Your task to perform on an android device: Open Maps and search for coffee Image 0: 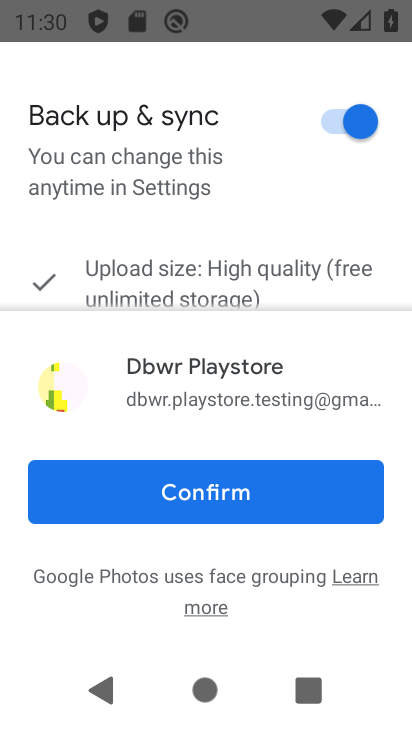
Step 0: press home button
Your task to perform on an android device: Open Maps and search for coffee Image 1: 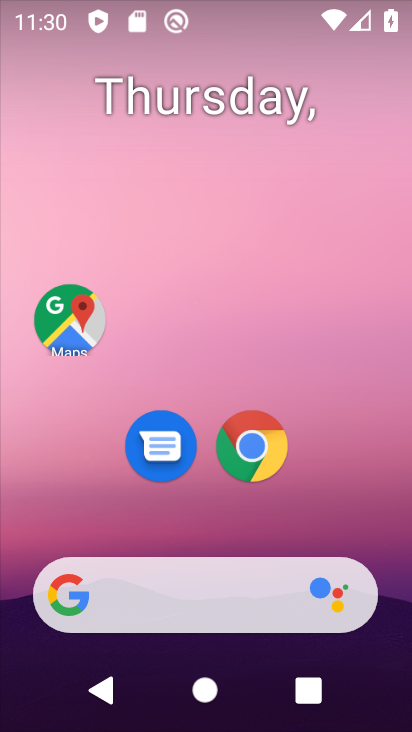
Step 1: drag from (360, 481) to (286, 26)
Your task to perform on an android device: Open Maps and search for coffee Image 2: 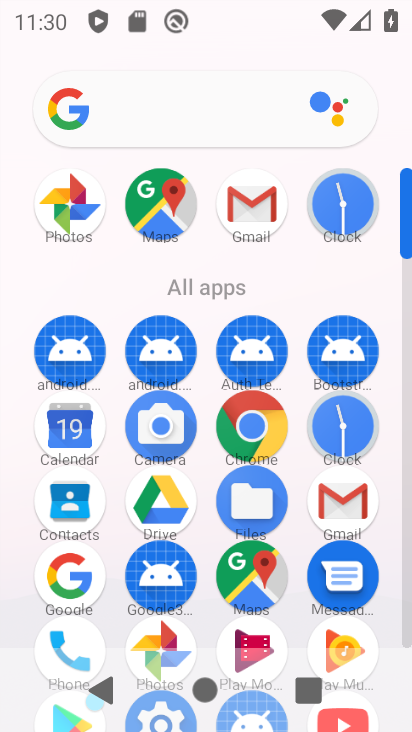
Step 2: click (164, 200)
Your task to perform on an android device: Open Maps and search for coffee Image 3: 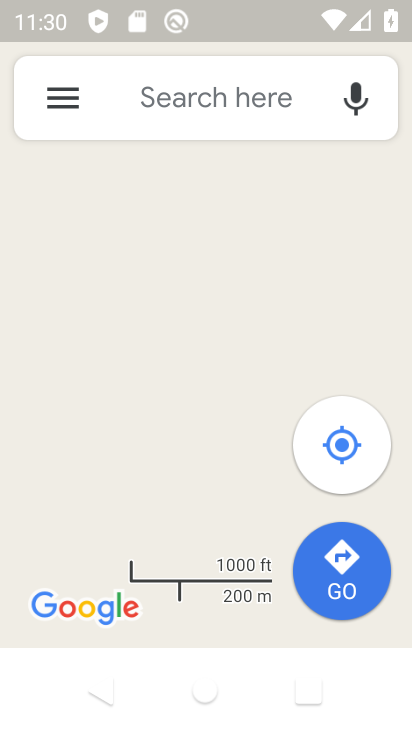
Step 3: click (200, 104)
Your task to perform on an android device: Open Maps and search for coffee Image 4: 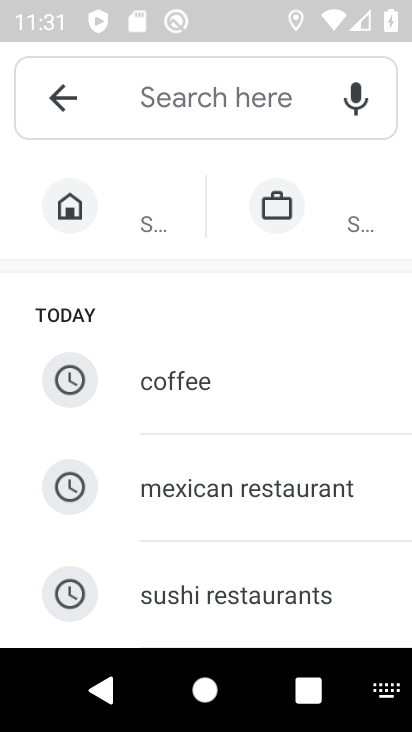
Step 4: type "coffee"
Your task to perform on an android device: Open Maps and search for coffee Image 5: 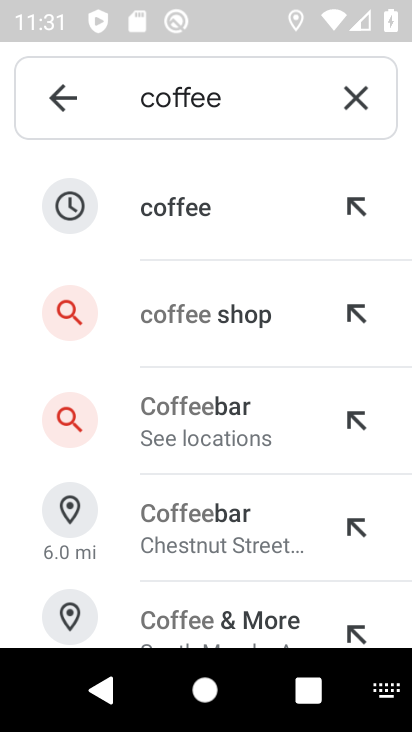
Step 5: click (185, 216)
Your task to perform on an android device: Open Maps and search for coffee Image 6: 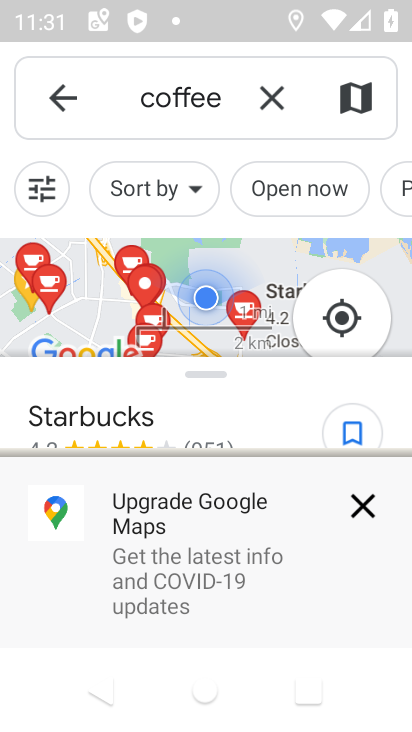
Step 6: task complete